Your task to perform on an android device: delete a single message in the gmail app Image 0: 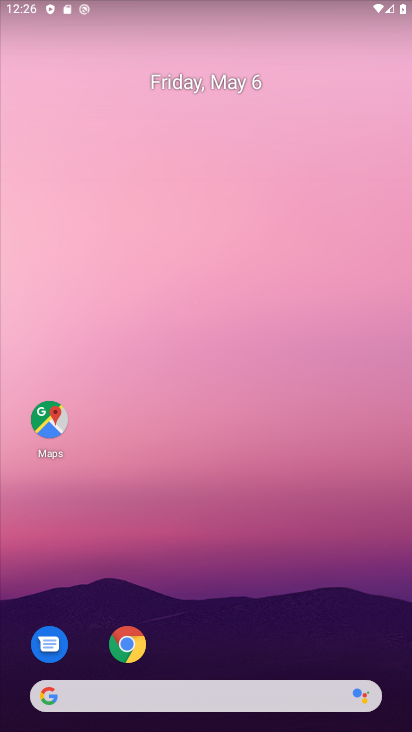
Step 0: drag from (302, 669) to (289, 0)
Your task to perform on an android device: delete a single message in the gmail app Image 1: 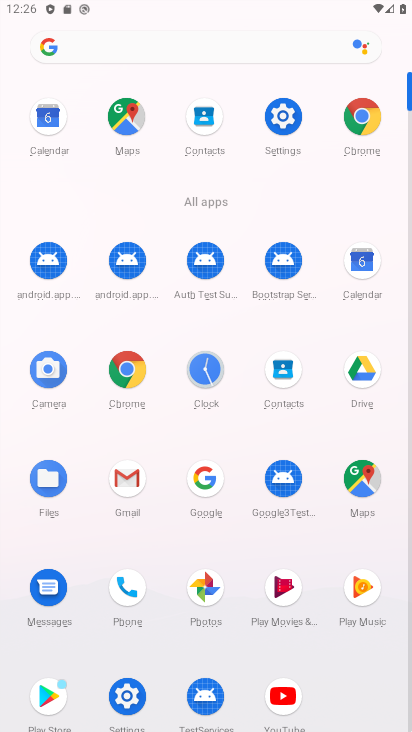
Step 1: click (130, 490)
Your task to perform on an android device: delete a single message in the gmail app Image 2: 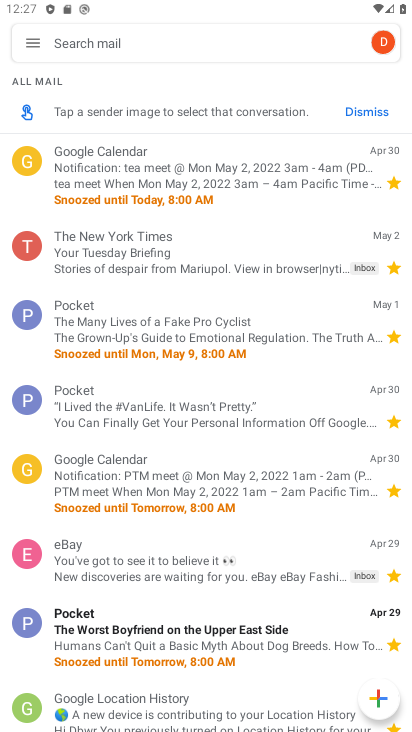
Step 2: click (185, 185)
Your task to perform on an android device: delete a single message in the gmail app Image 3: 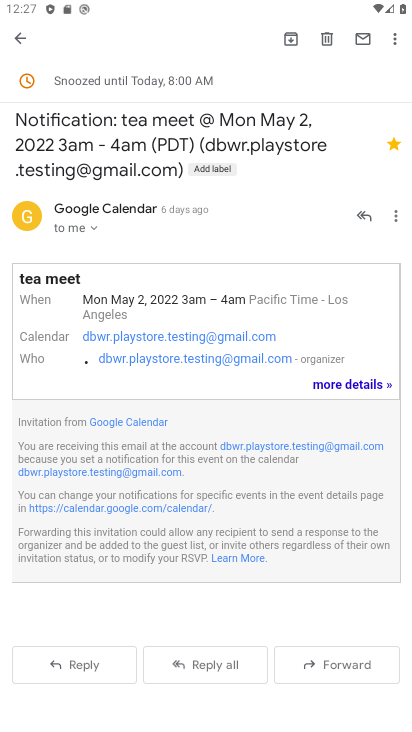
Step 3: click (394, 36)
Your task to perform on an android device: delete a single message in the gmail app Image 4: 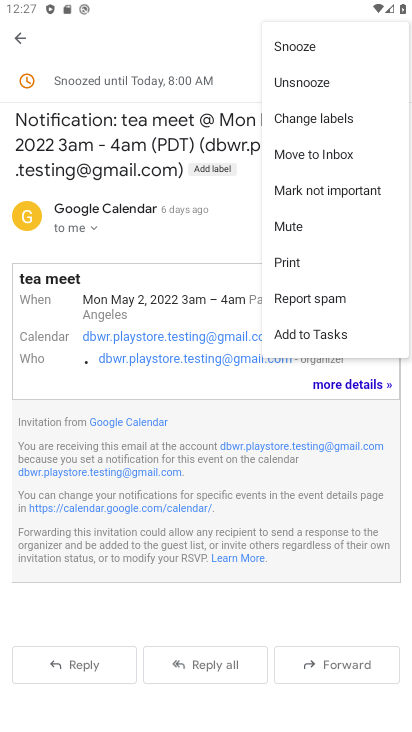
Step 4: click (224, 226)
Your task to perform on an android device: delete a single message in the gmail app Image 5: 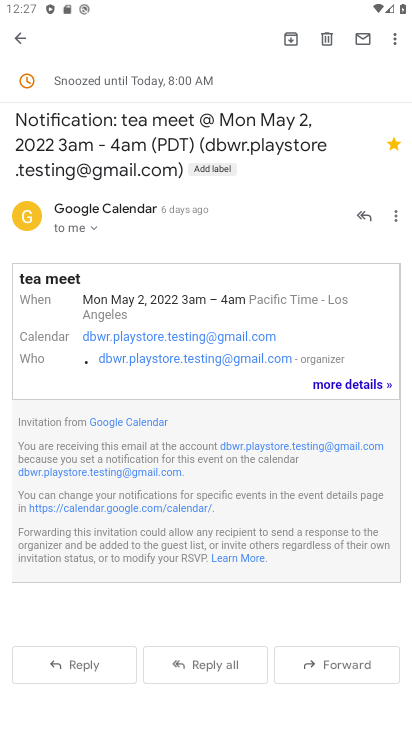
Step 5: click (329, 39)
Your task to perform on an android device: delete a single message in the gmail app Image 6: 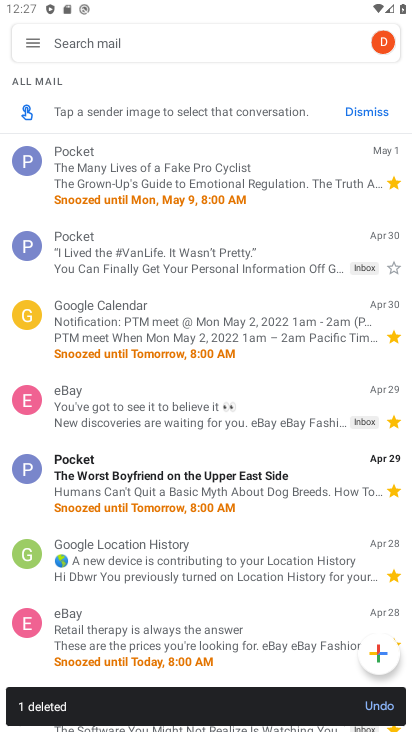
Step 6: task complete